Your task to perform on an android device: turn on improve location accuracy Image 0: 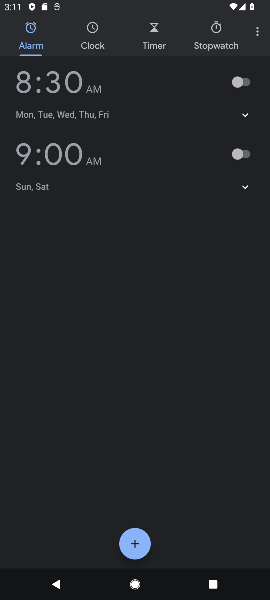
Step 0: press home button
Your task to perform on an android device: turn on improve location accuracy Image 1: 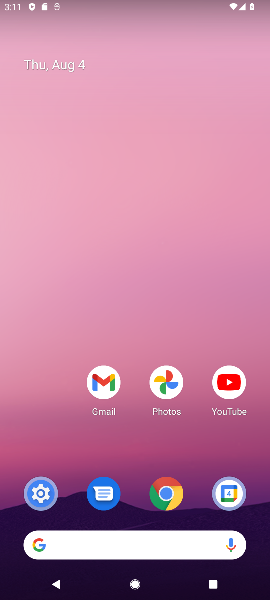
Step 1: drag from (110, 525) to (177, 186)
Your task to perform on an android device: turn on improve location accuracy Image 2: 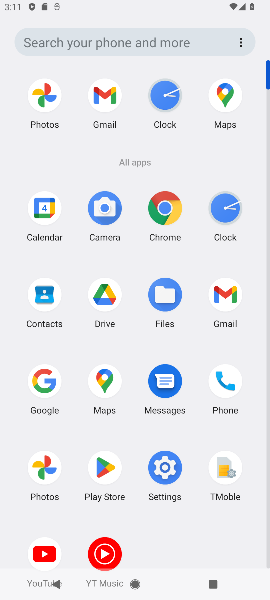
Step 2: click (177, 468)
Your task to perform on an android device: turn on improve location accuracy Image 3: 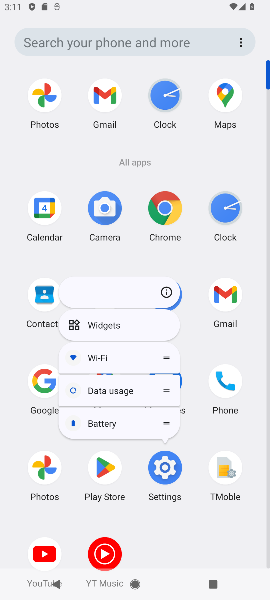
Step 3: click (167, 472)
Your task to perform on an android device: turn on improve location accuracy Image 4: 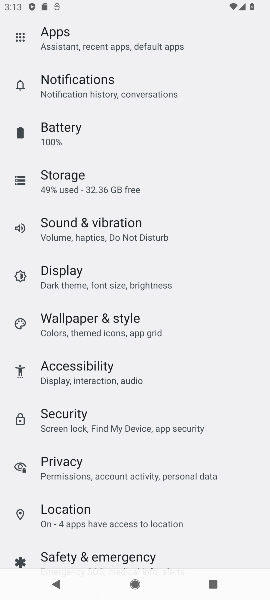
Step 4: click (66, 513)
Your task to perform on an android device: turn on improve location accuracy Image 5: 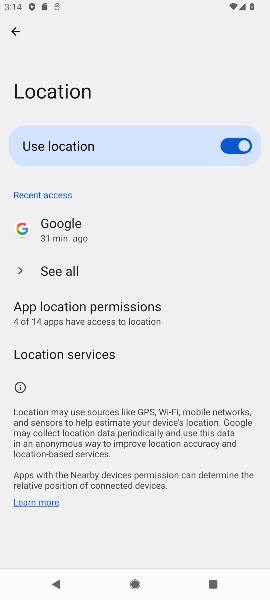
Step 5: click (71, 355)
Your task to perform on an android device: turn on improve location accuracy Image 6: 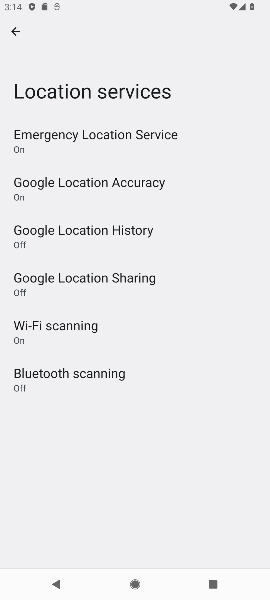
Step 6: click (106, 197)
Your task to perform on an android device: turn on improve location accuracy Image 7: 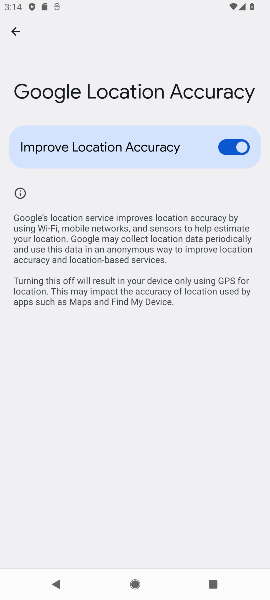
Step 7: task complete